Your task to perform on an android device: empty trash in google photos Image 0: 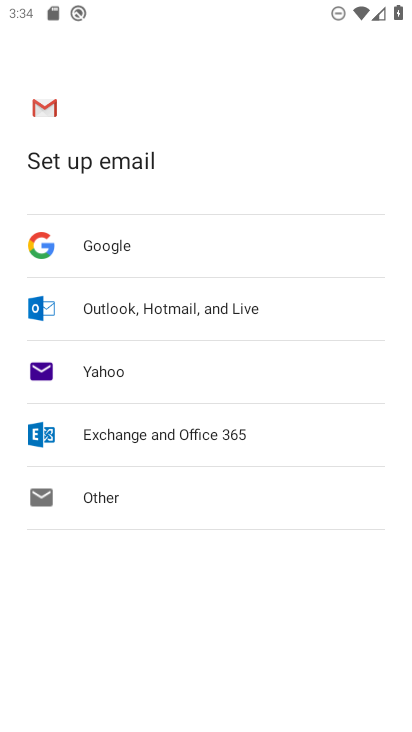
Step 0: drag from (204, 632) to (351, 192)
Your task to perform on an android device: empty trash in google photos Image 1: 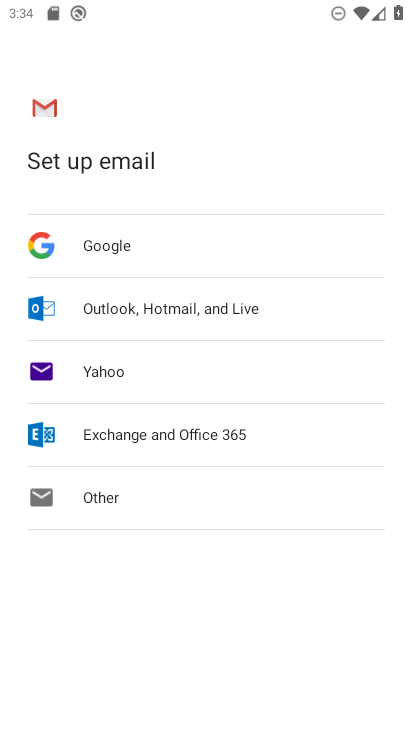
Step 1: press home button
Your task to perform on an android device: empty trash in google photos Image 2: 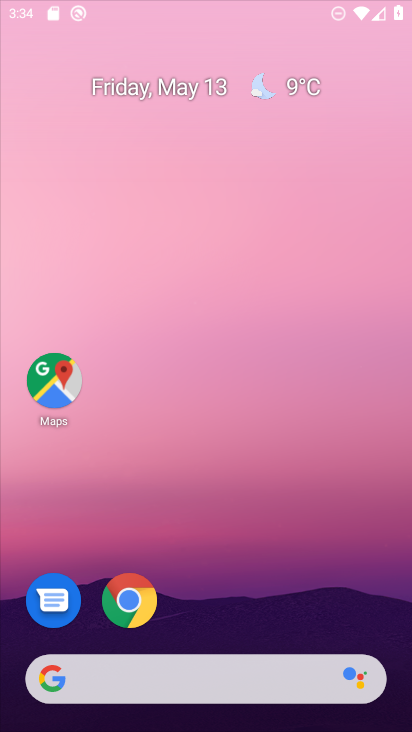
Step 2: drag from (260, 589) to (311, 6)
Your task to perform on an android device: empty trash in google photos Image 3: 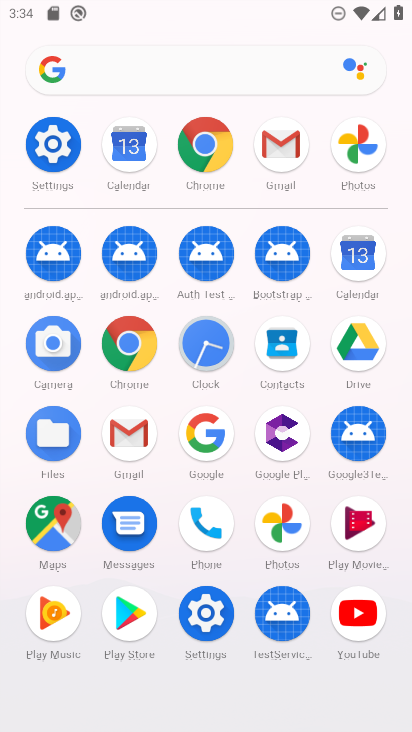
Step 3: click (274, 533)
Your task to perform on an android device: empty trash in google photos Image 4: 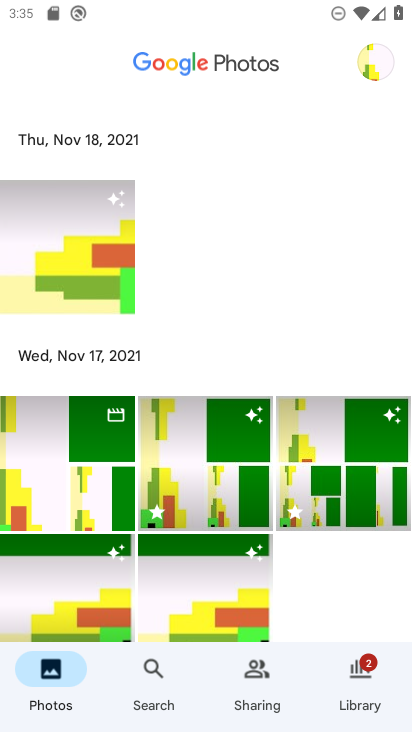
Step 4: click (359, 671)
Your task to perform on an android device: empty trash in google photos Image 5: 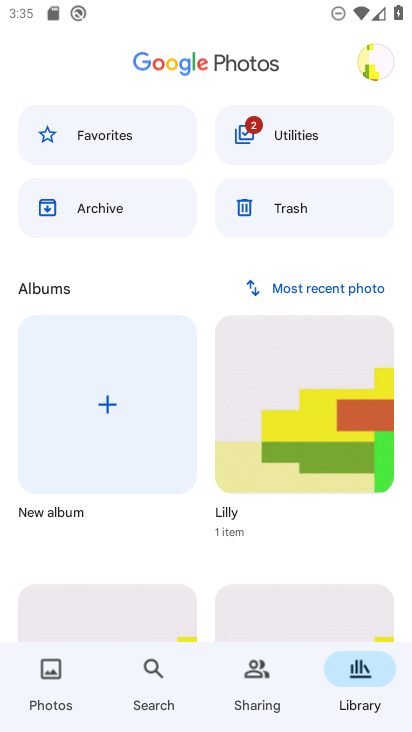
Step 5: click (292, 223)
Your task to perform on an android device: empty trash in google photos Image 6: 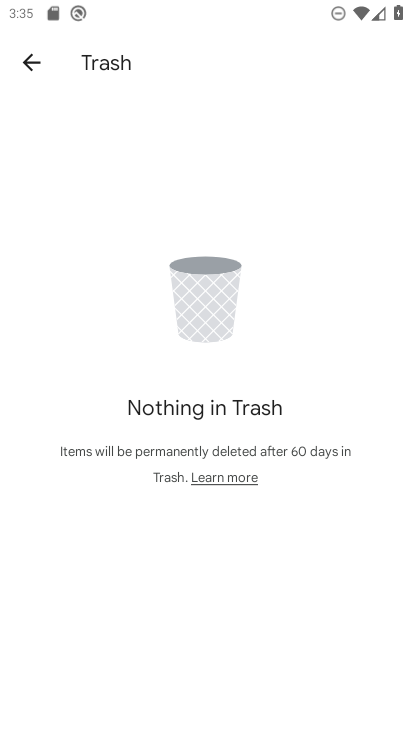
Step 6: task complete